Your task to perform on an android device: install app "Chime – Mobile Banking" Image 0: 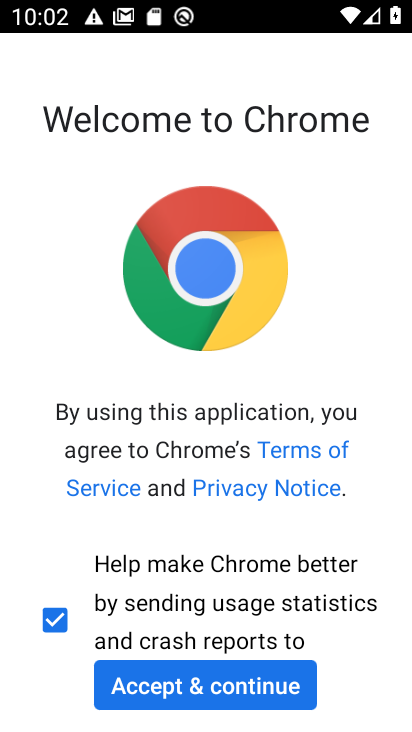
Step 0: press home button
Your task to perform on an android device: install app "Chime – Mobile Banking" Image 1: 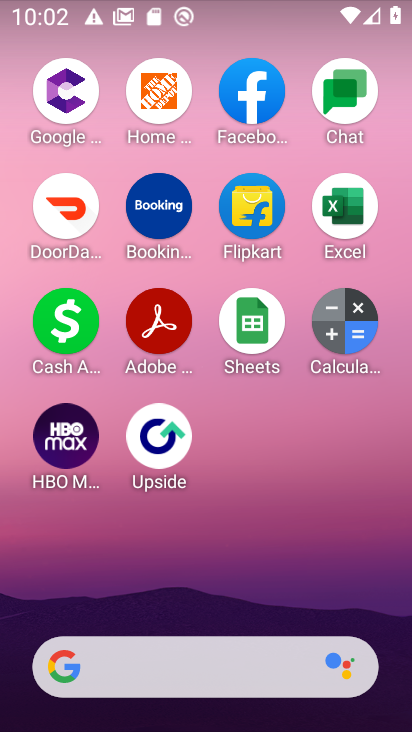
Step 1: click (228, 599)
Your task to perform on an android device: install app "Chime – Mobile Banking" Image 2: 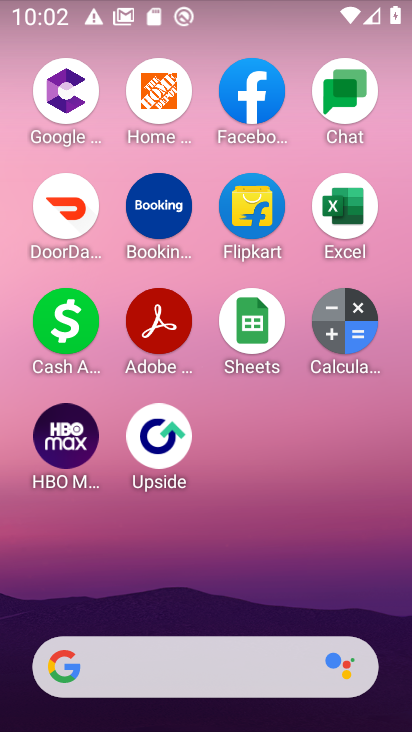
Step 2: drag from (228, 599) to (185, 5)
Your task to perform on an android device: install app "Chime – Mobile Banking" Image 3: 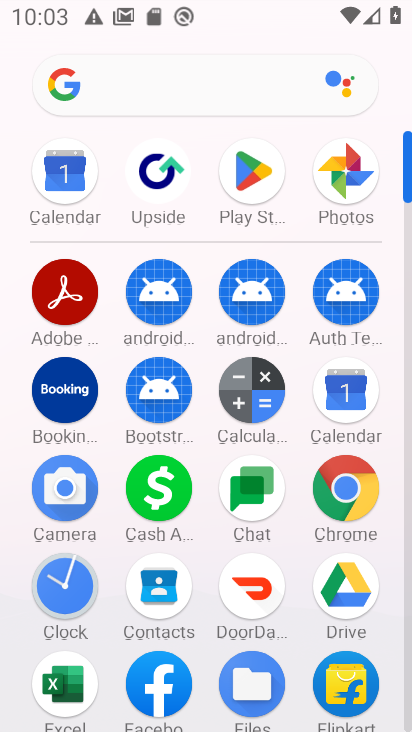
Step 3: click (251, 182)
Your task to perform on an android device: install app "Chime – Mobile Banking" Image 4: 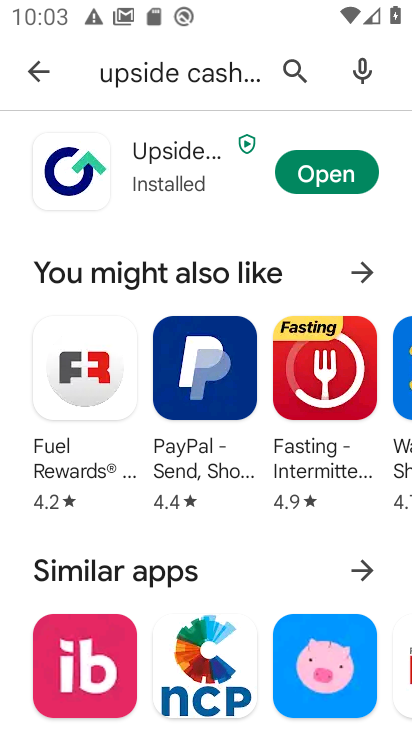
Step 4: click (286, 70)
Your task to perform on an android device: install app "Chime – Mobile Banking" Image 5: 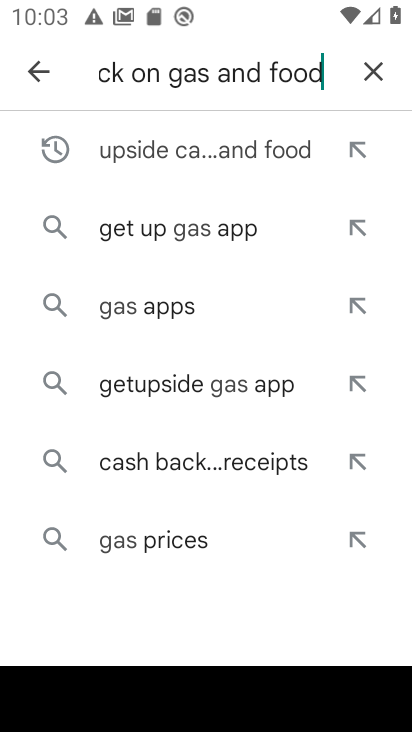
Step 5: click (371, 77)
Your task to perform on an android device: install app "Chime – Mobile Banking" Image 6: 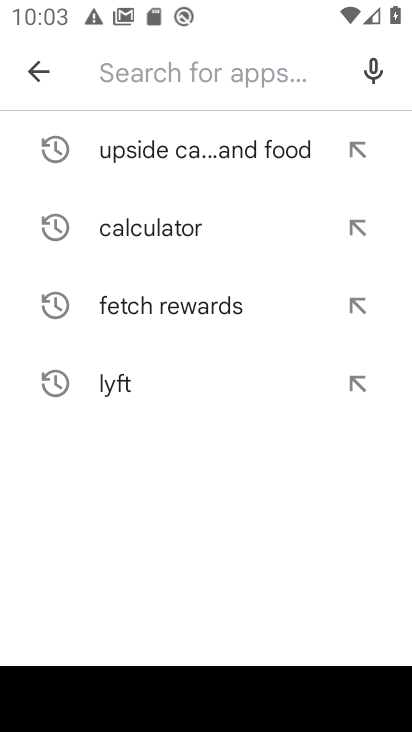
Step 6: type "chime - mobile banking"
Your task to perform on an android device: install app "Chime – Mobile Banking" Image 7: 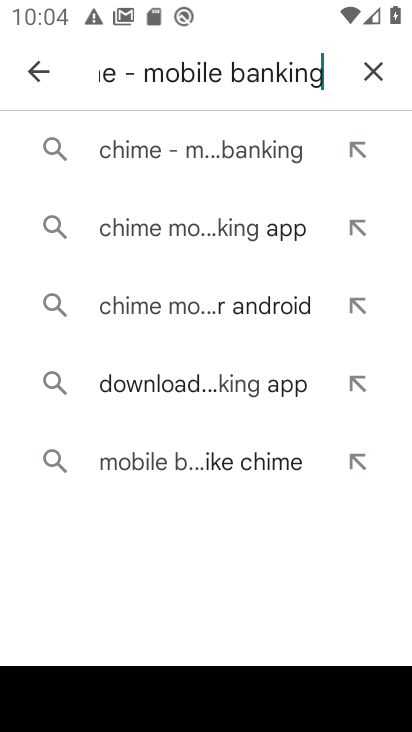
Step 7: click (284, 147)
Your task to perform on an android device: install app "Chime – Mobile Banking" Image 8: 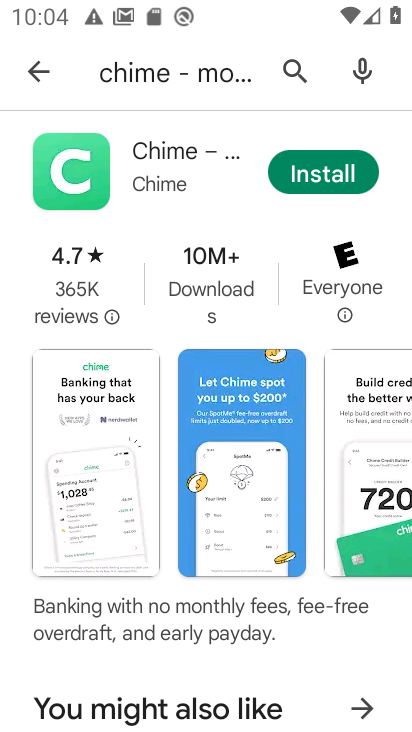
Step 8: click (334, 174)
Your task to perform on an android device: install app "Chime – Mobile Banking" Image 9: 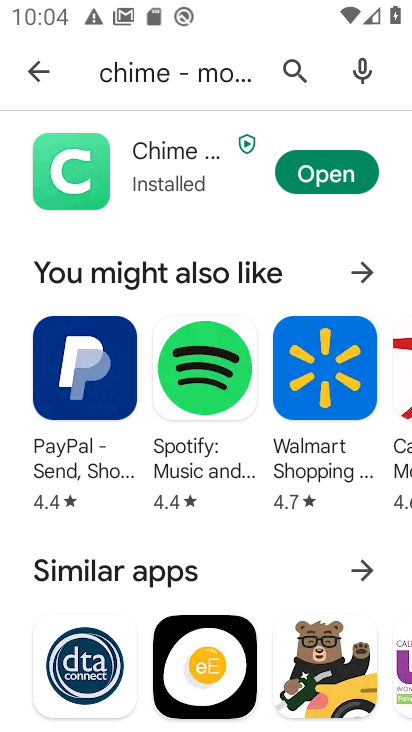
Step 9: task complete